Your task to perform on an android device: When is my next meeting? Image 0: 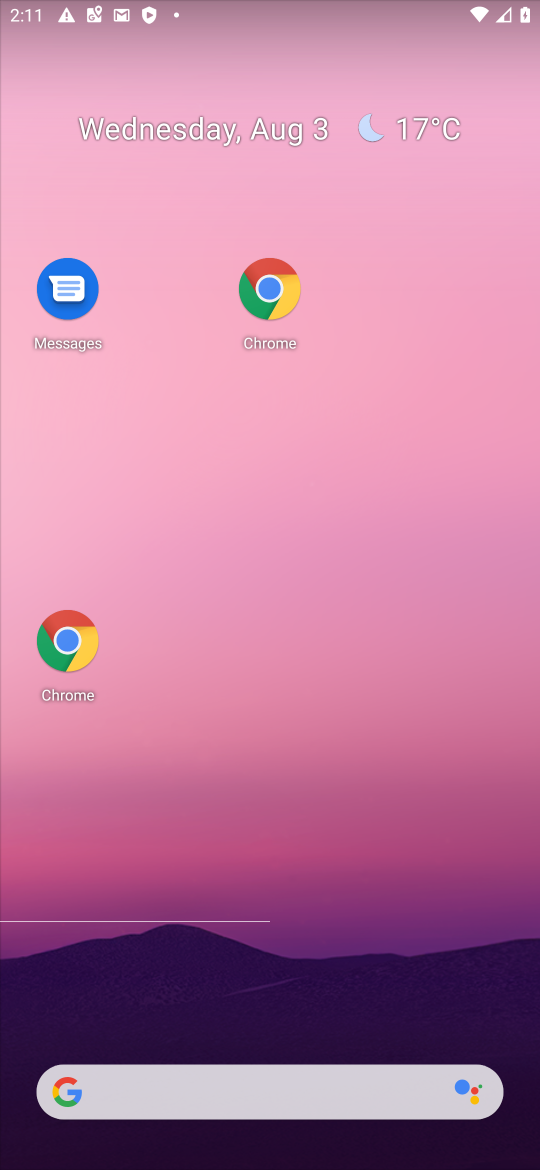
Step 0: drag from (363, 1040) to (330, 95)
Your task to perform on an android device: When is my next meeting? Image 1: 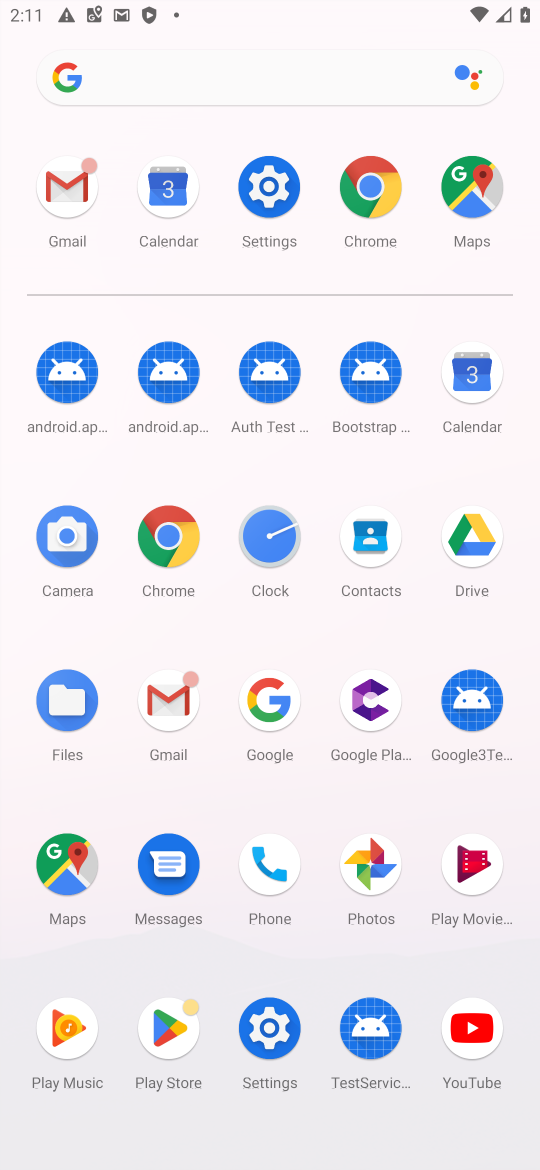
Step 1: click (273, 173)
Your task to perform on an android device: When is my next meeting? Image 2: 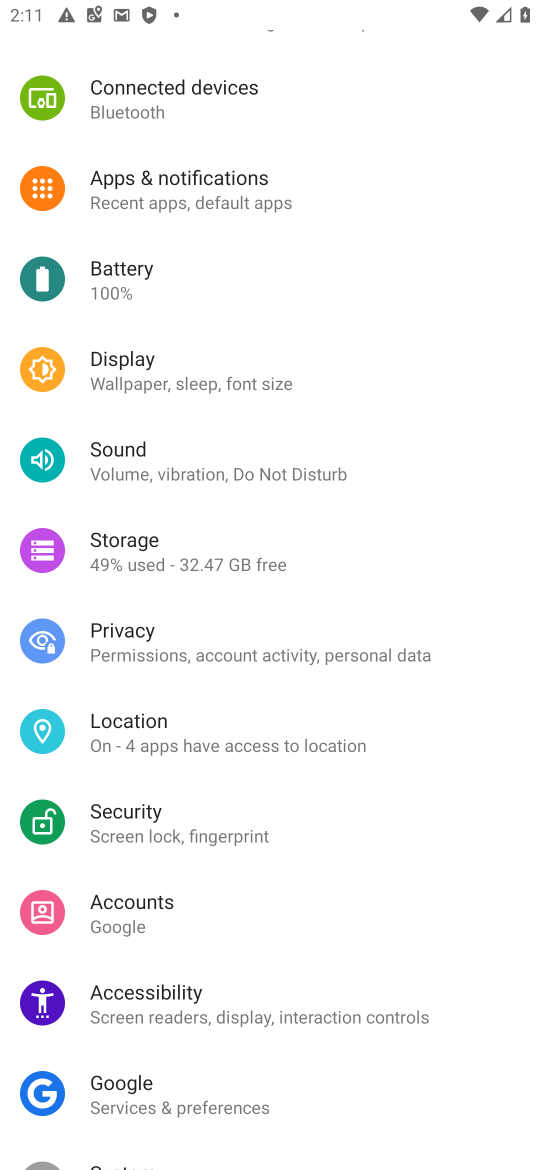
Step 2: press home button
Your task to perform on an android device: When is my next meeting? Image 3: 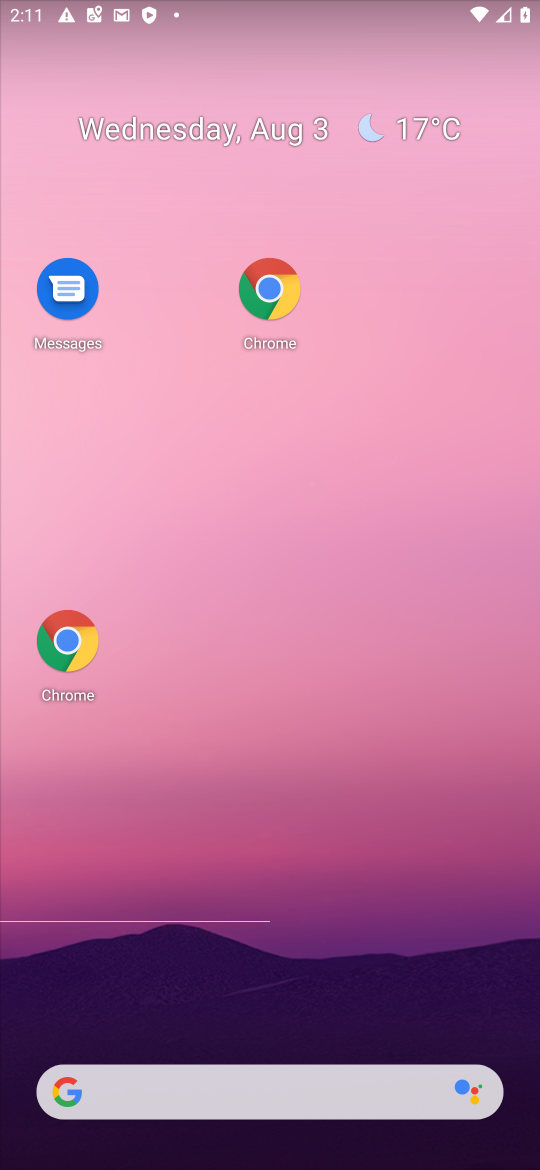
Step 3: drag from (330, 980) to (322, 243)
Your task to perform on an android device: When is my next meeting? Image 4: 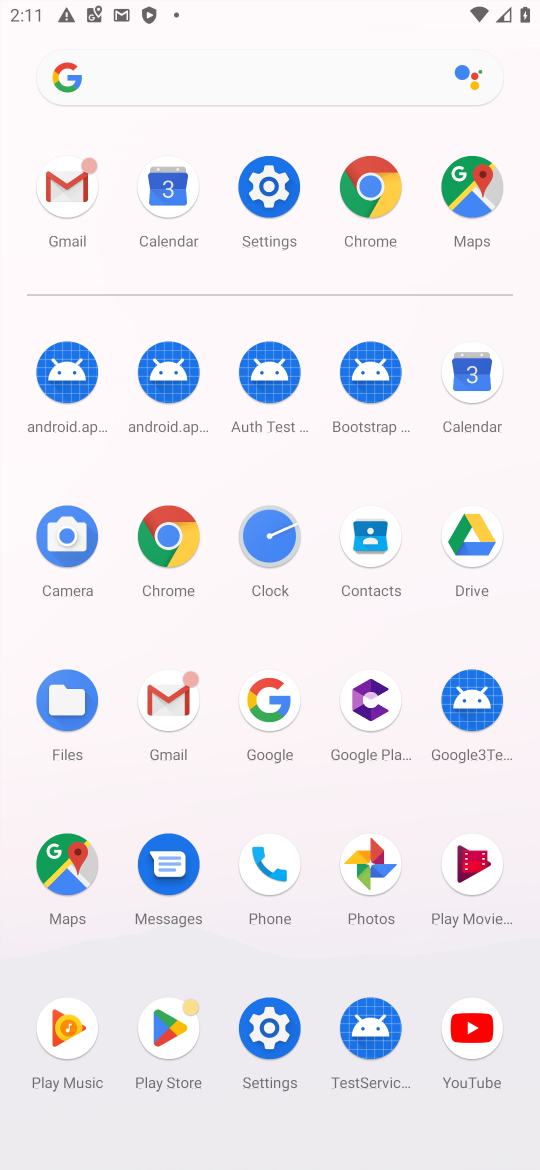
Step 4: click (167, 222)
Your task to perform on an android device: When is my next meeting? Image 5: 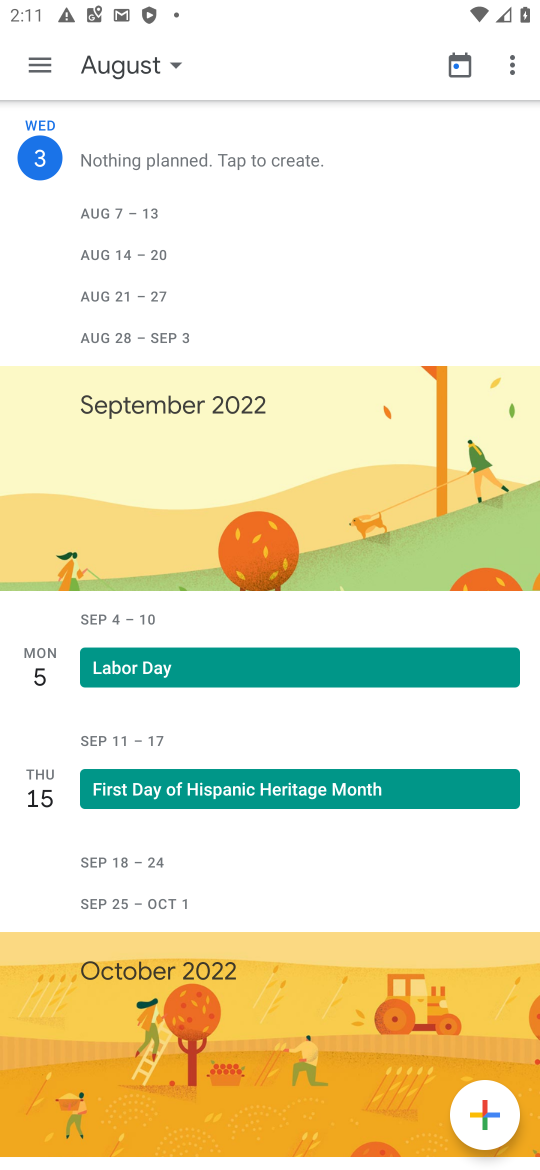
Step 5: task complete